Your task to perform on an android device: Find coffee shops on Maps Image 0: 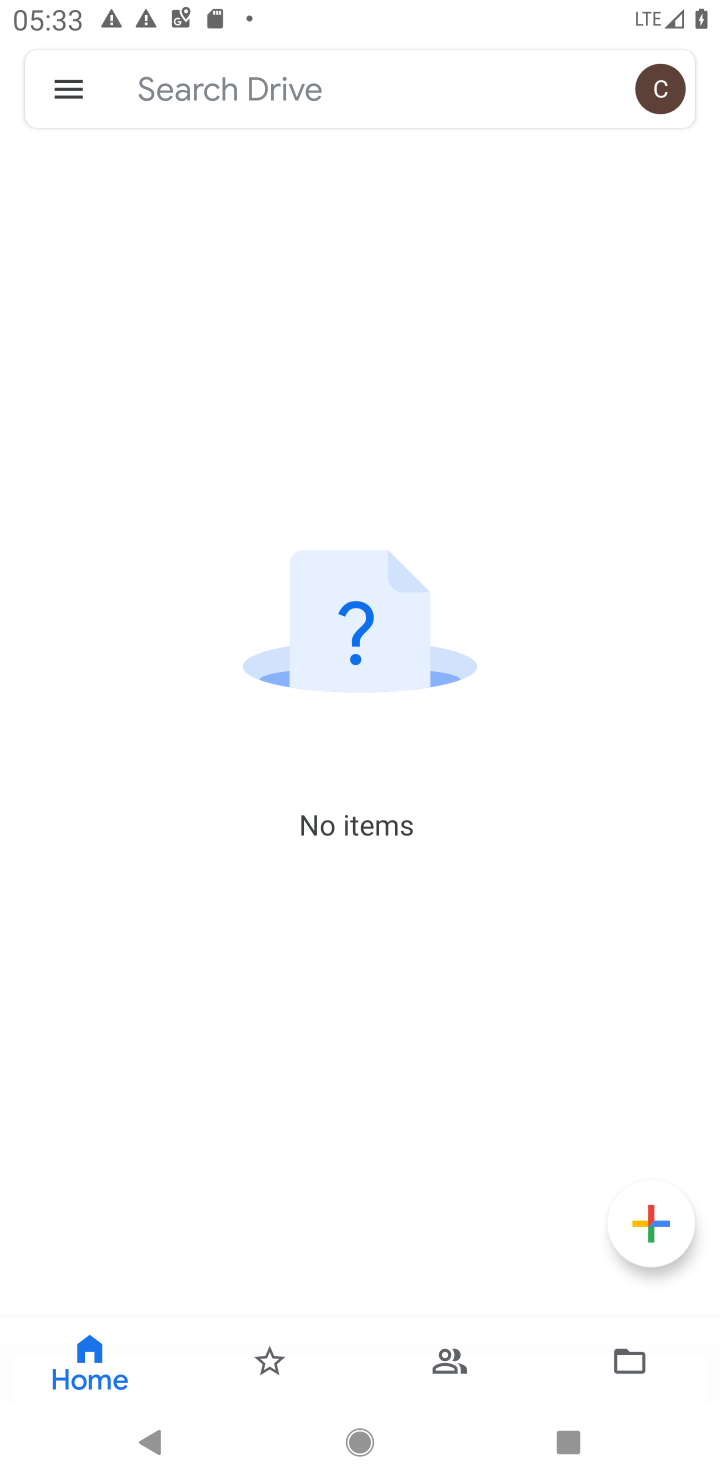
Step 0: press home button
Your task to perform on an android device: Find coffee shops on Maps Image 1: 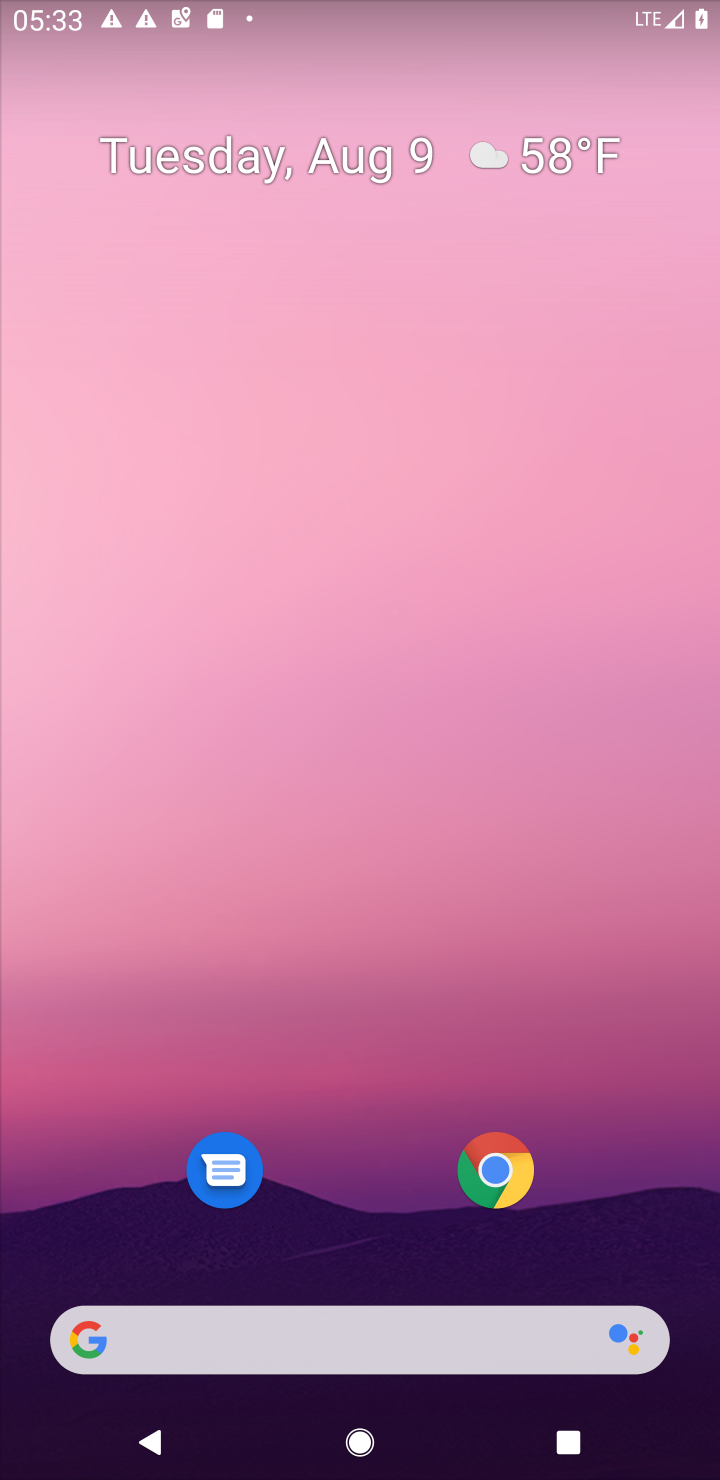
Step 1: drag from (328, 1252) to (421, 84)
Your task to perform on an android device: Find coffee shops on Maps Image 2: 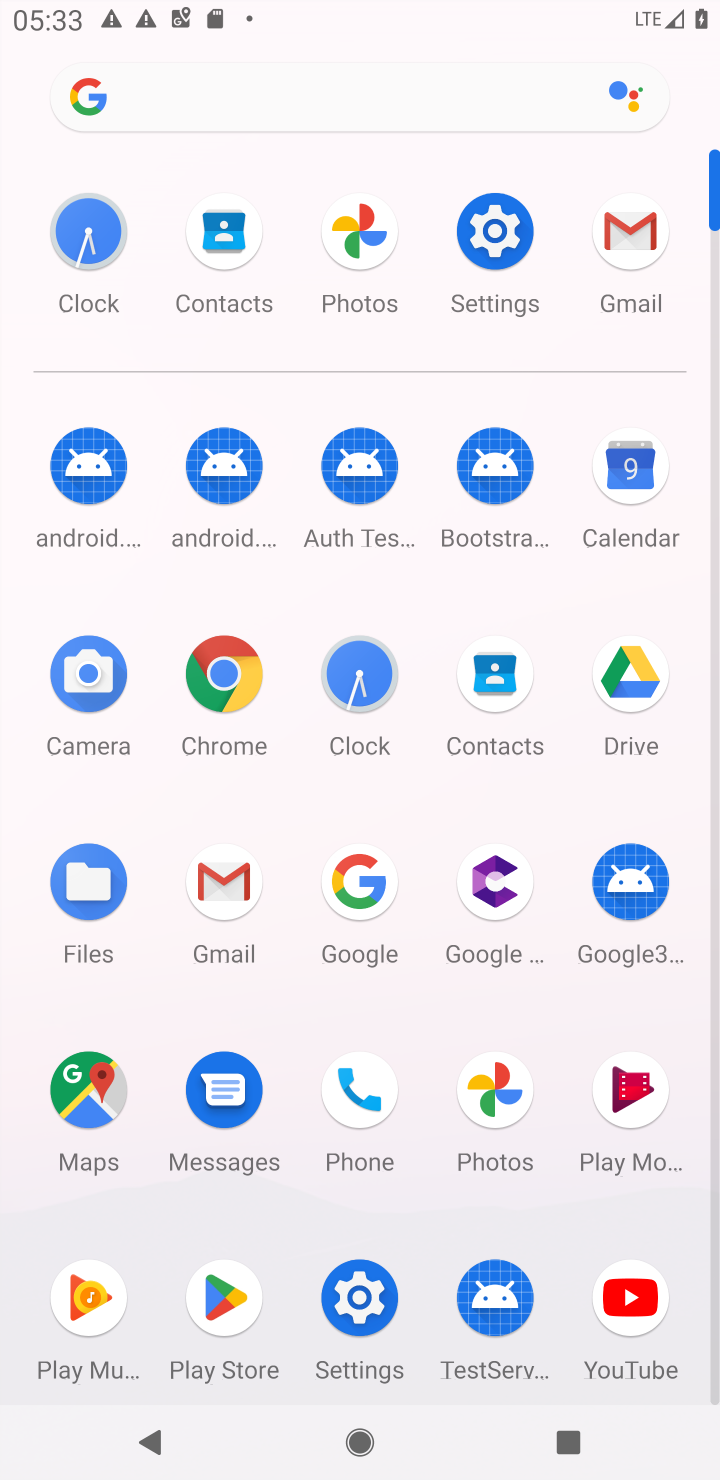
Step 2: drag from (398, 1276) to (428, 764)
Your task to perform on an android device: Find coffee shops on Maps Image 3: 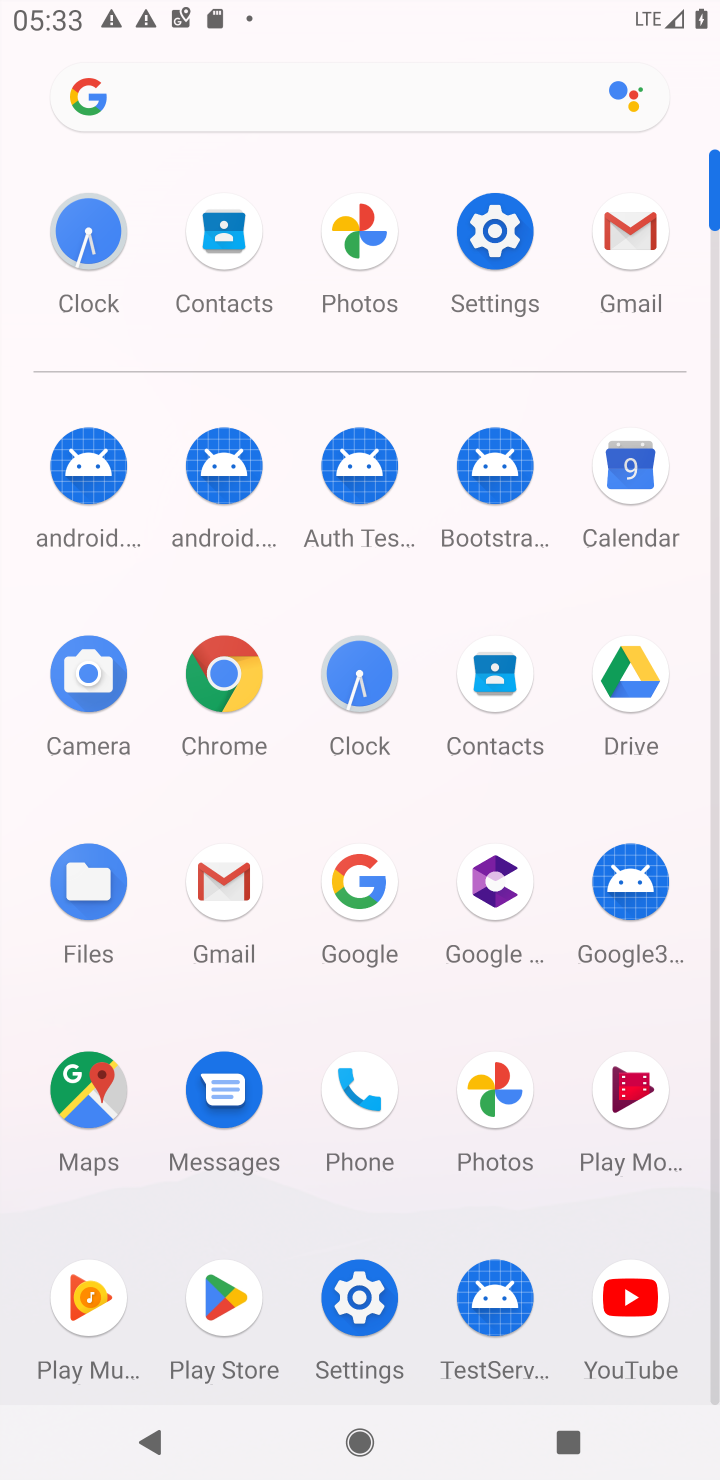
Step 3: click (104, 1083)
Your task to perform on an android device: Find coffee shops on Maps Image 4: 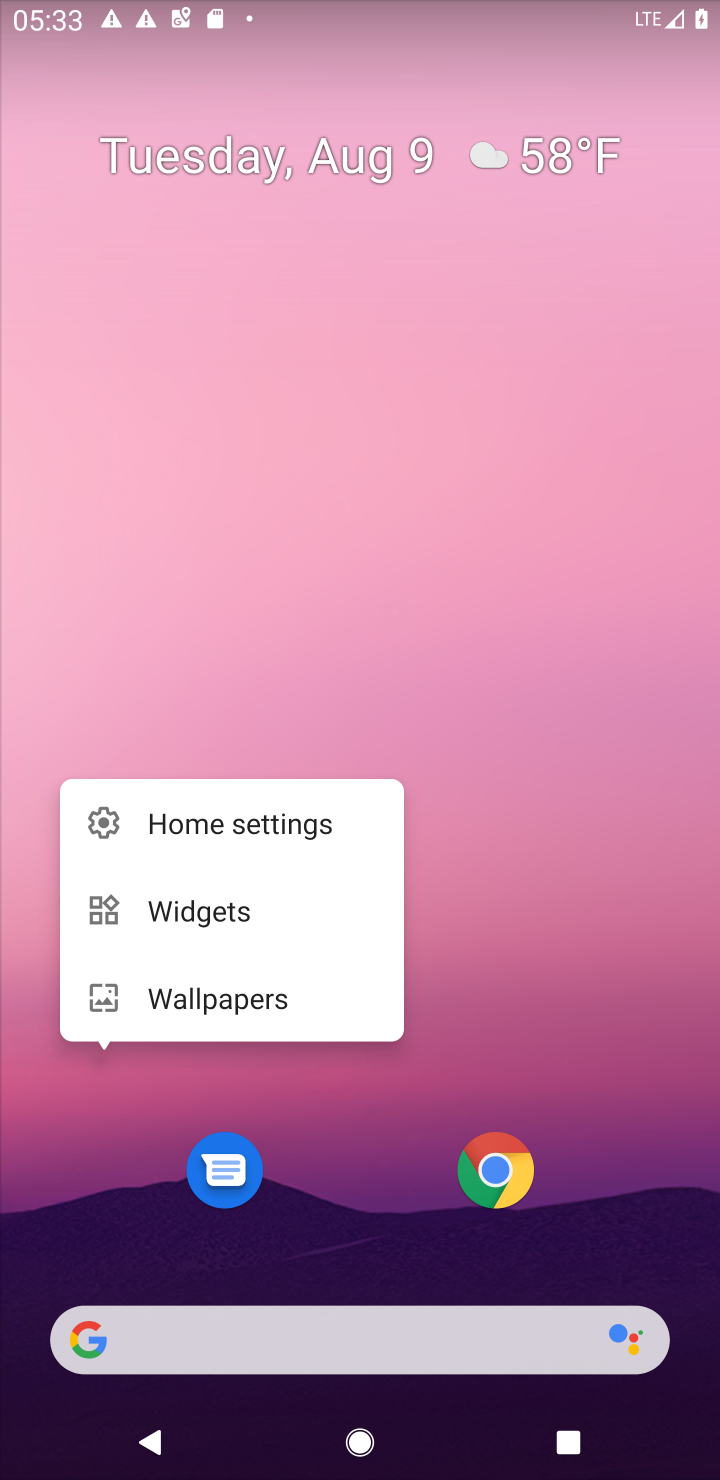
Step 4: drag from (384, 1237) to (446, 430)
Your task to perform on an android device: Find coffee shops on Maps Image 5: 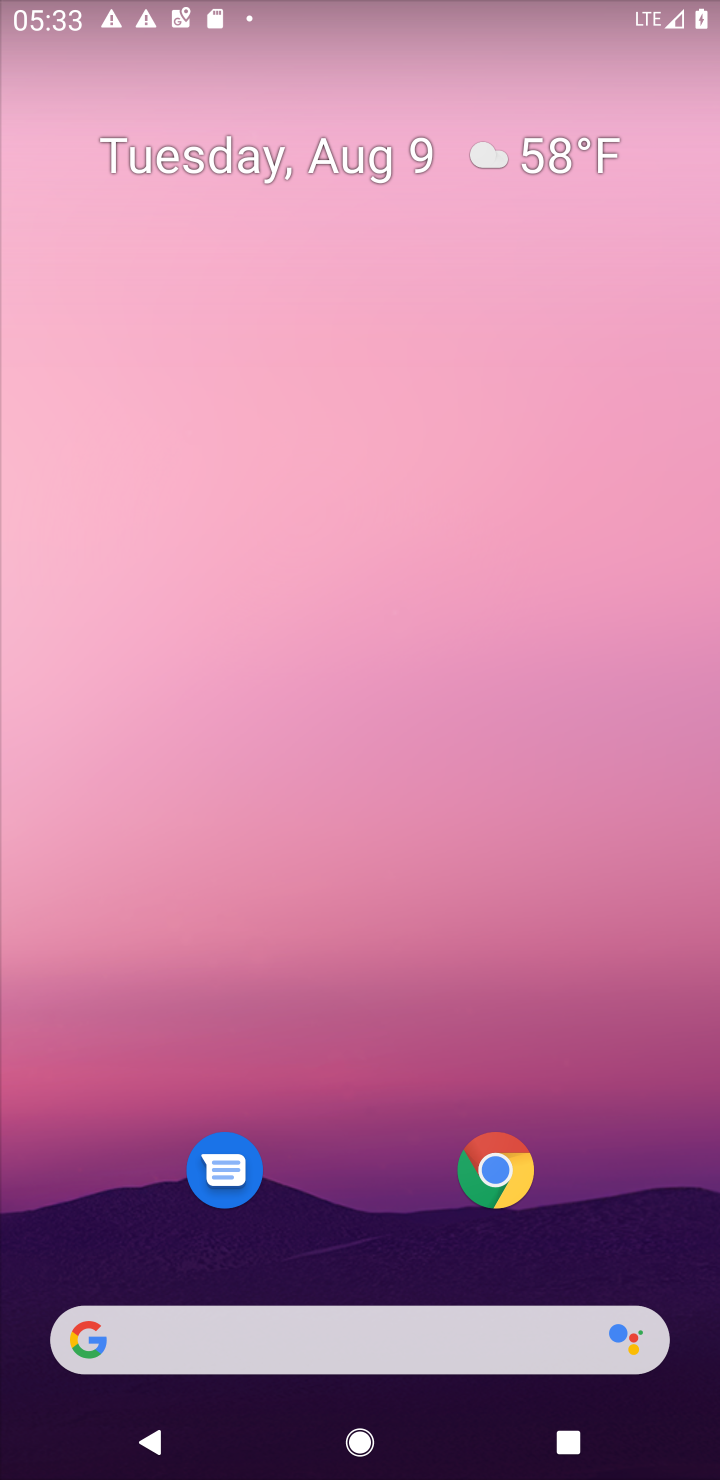
Step 5: drag from (408, 1258) to (344, 162)
Your task to perform on an android device: Find coffee shops on Maps Image 6: 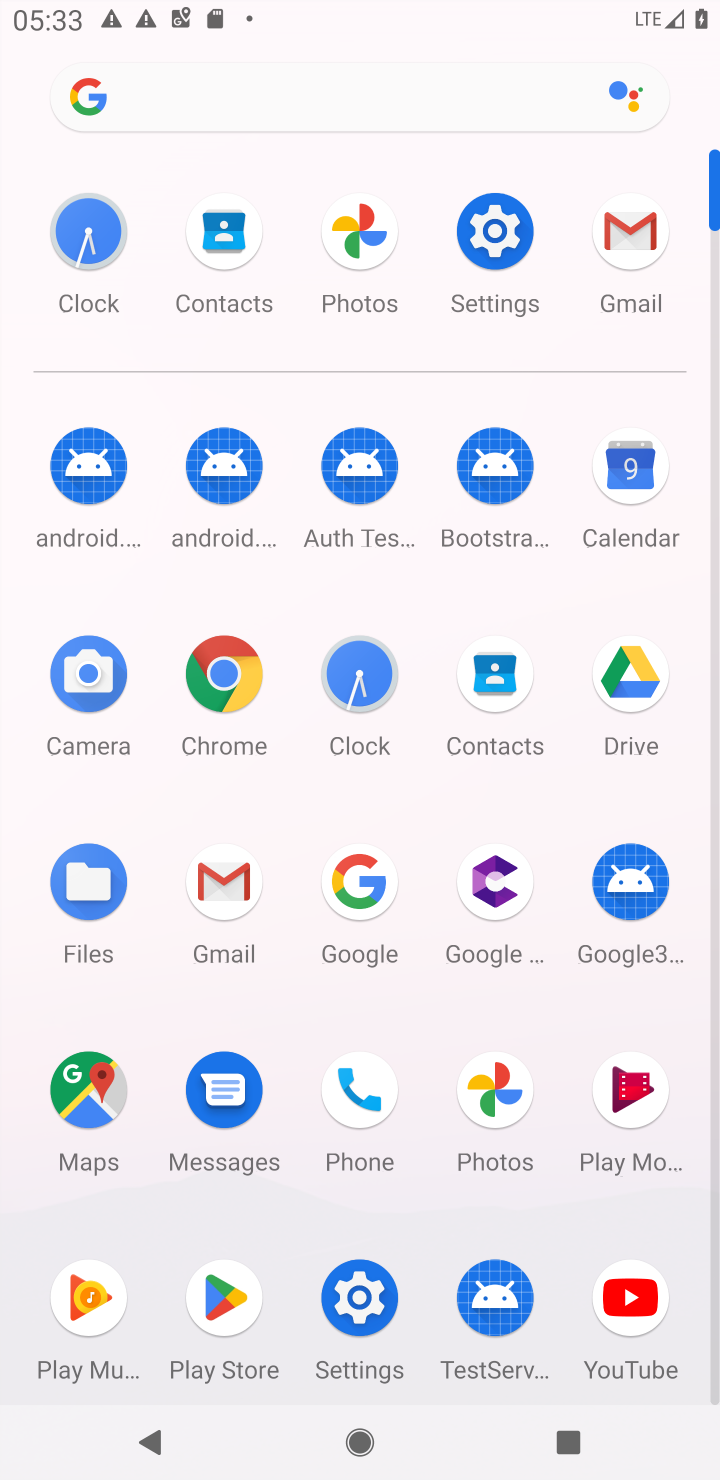
Step 6: click (69, 1108)
Your task to perform on an android device: Find coffee shops on Maps Image 7: 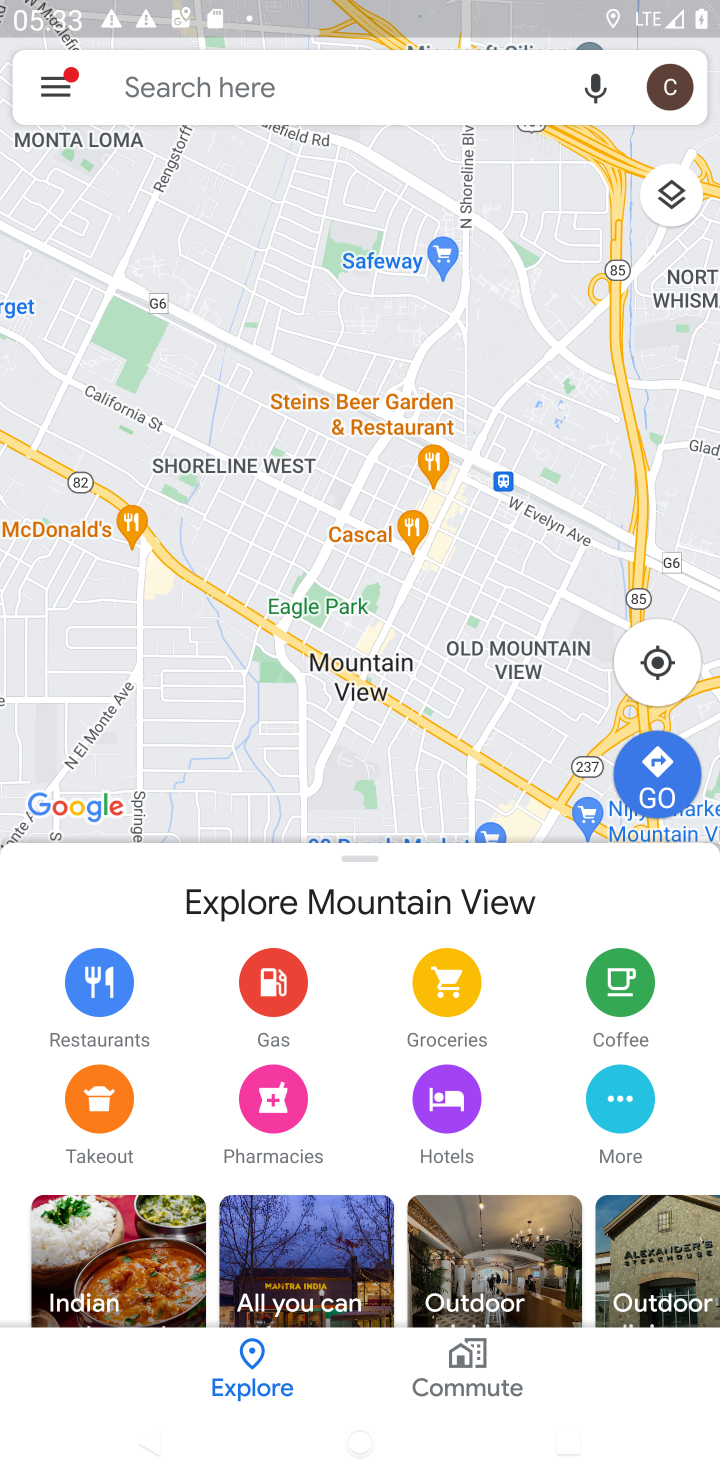
Step 7: click (185, 81)
Your task to perform on an android device: Find coffee shops on Maps Image 8: 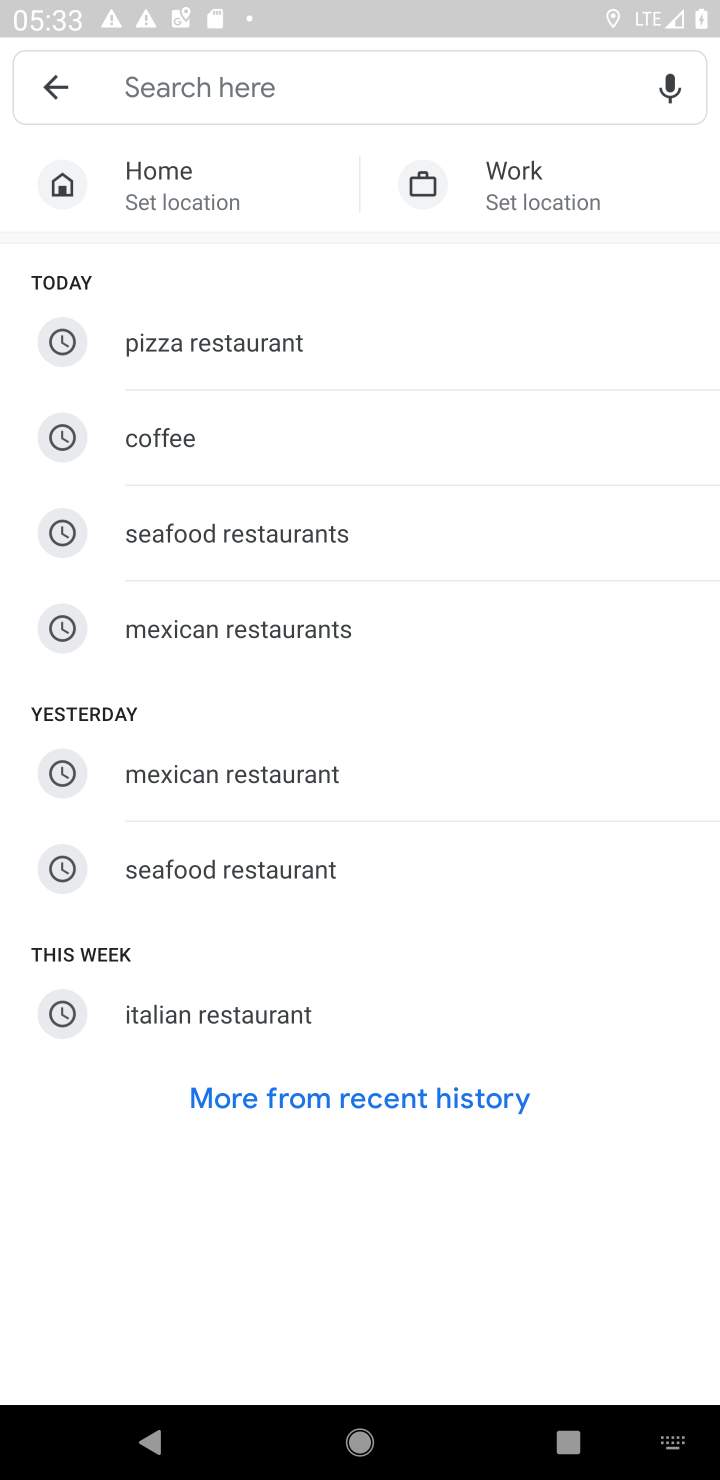
Step 8: type "coffee shops "
Your task to perform on an android device: Find coffee shops on Maps Image 9: 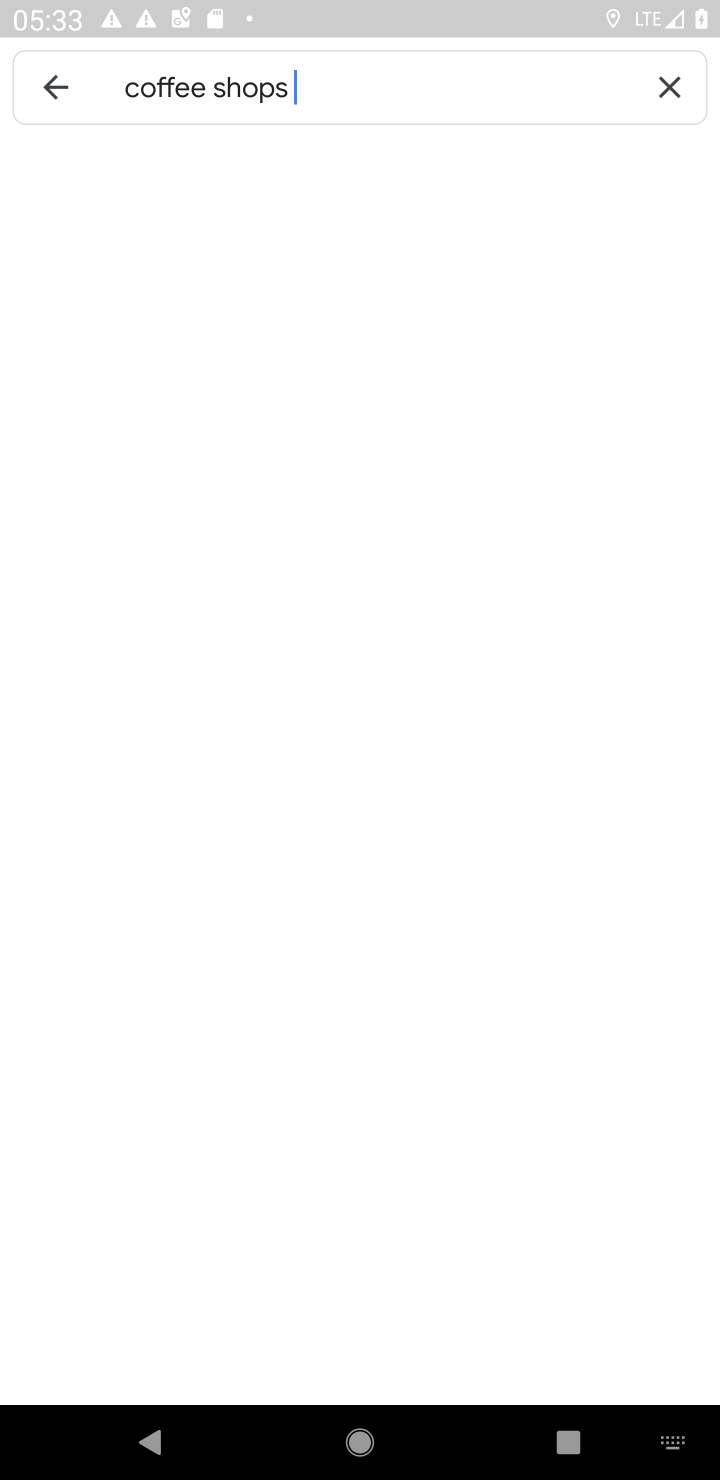
Step 9: press enter
Your task to perform on an android device: Find coffee shops on Maps Image 10: 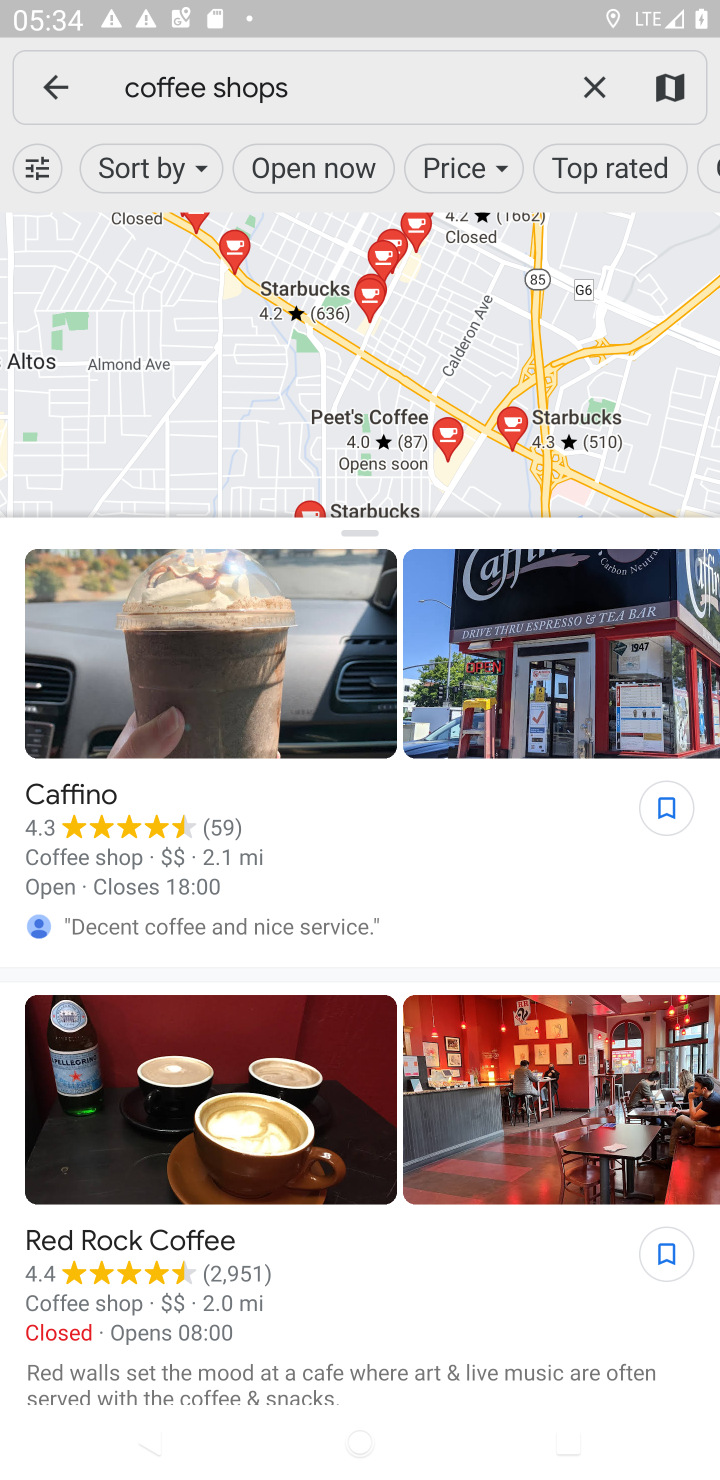
Step 10: task complete